Your task to perform on an android device: check battery use Image 0: 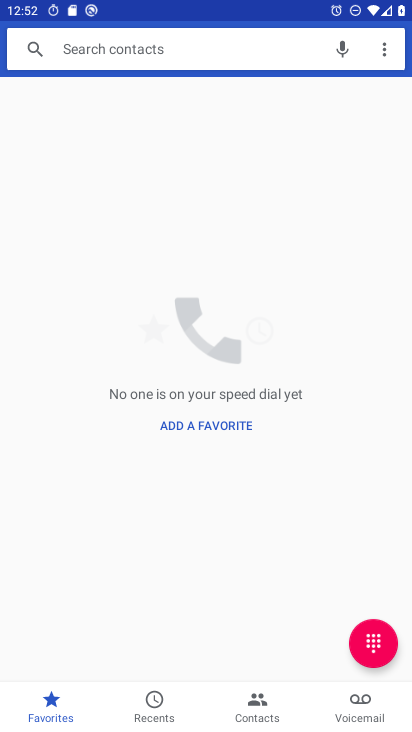
Step 0: press home button
Your task to perform on an android device: check battery use Image 1: 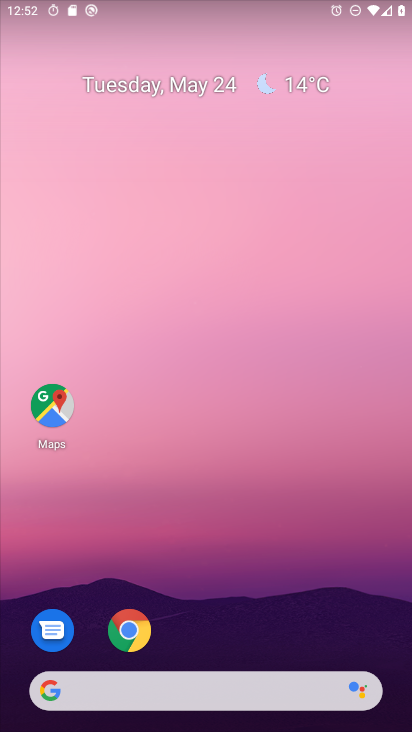
Step 1: drag from (311, 602) to (307, 211)
Your task to perform on an android device: check battery use Image 2: 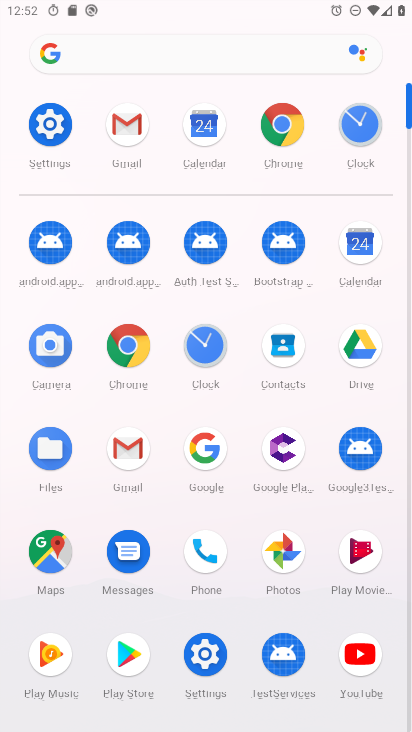
Step 2: click (44, 138)
Your task to perform on an android device: check battery use Image 3: 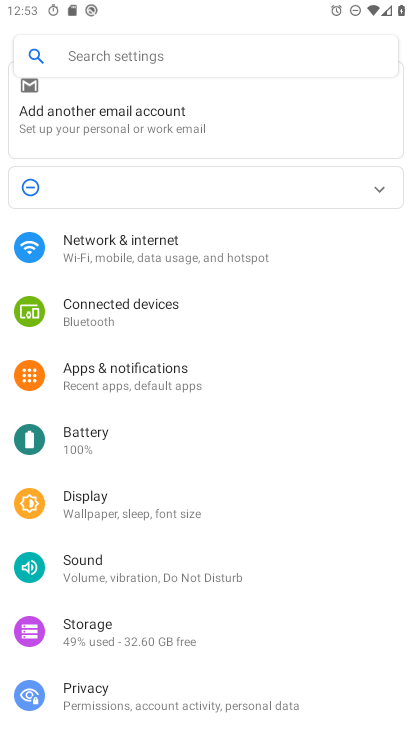
Step 3: drag from (127, 588) to (125, 511)
Your task to perform on an android device: check battery use Image 4: 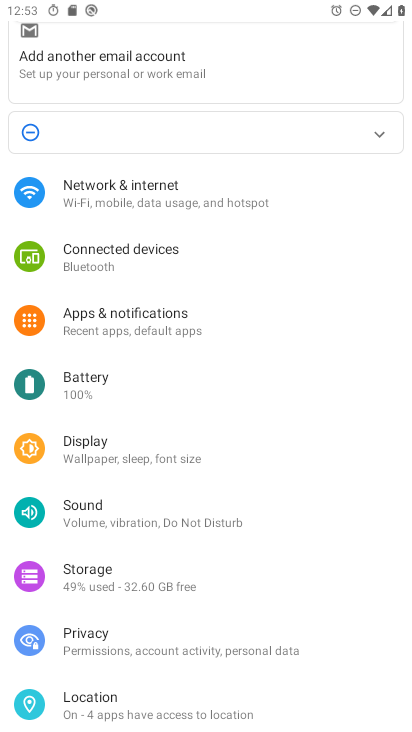
Step 4: click (103, 393)
Your task to perform on an android device: check battery use Image 5: 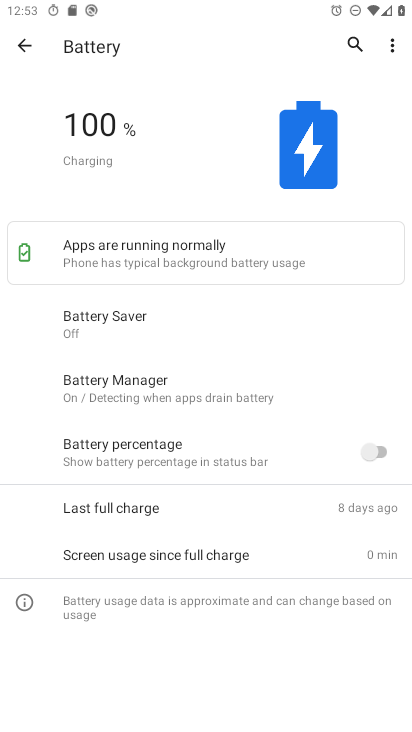
Step 5: task complete